Your task to perform on an android device: Add "usb-c" to the cart on bestbuy.com Image 0: 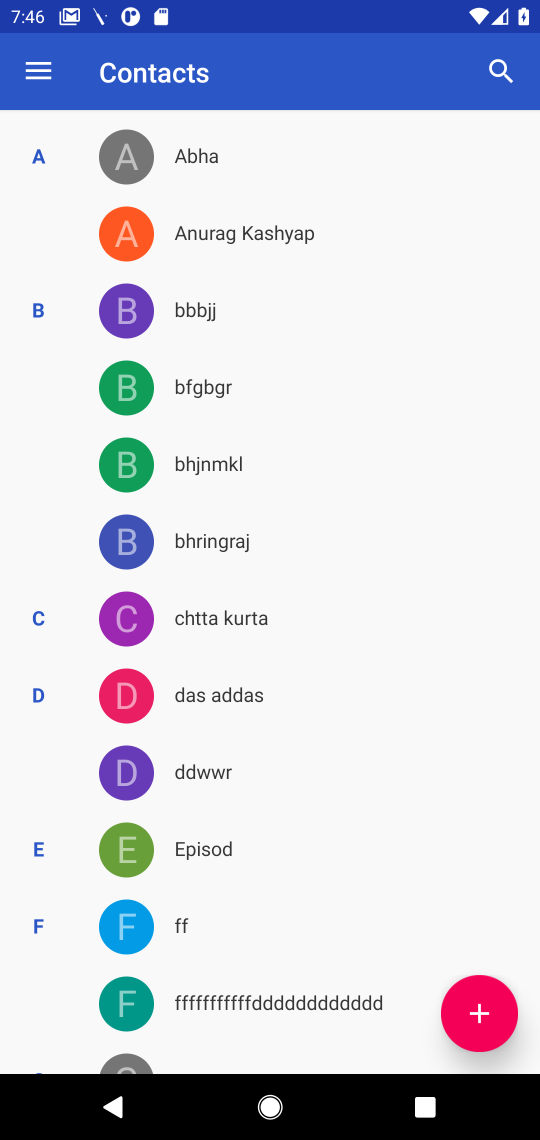
Step 0: press home button
Your task to perform on an android device: Add "usb-c" to the cart on bestbuy.com Image 1: 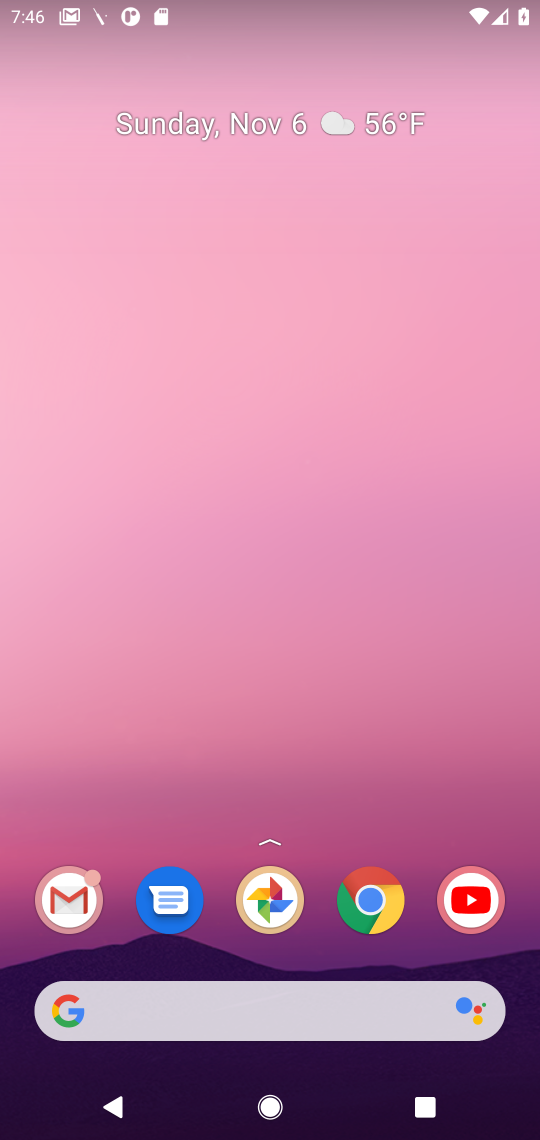
Step 1: drag from (292, 975) to (337, 245)
Your task to perform on an android device: Add "usb-c" to the cart on bestbuy.com Image 2: 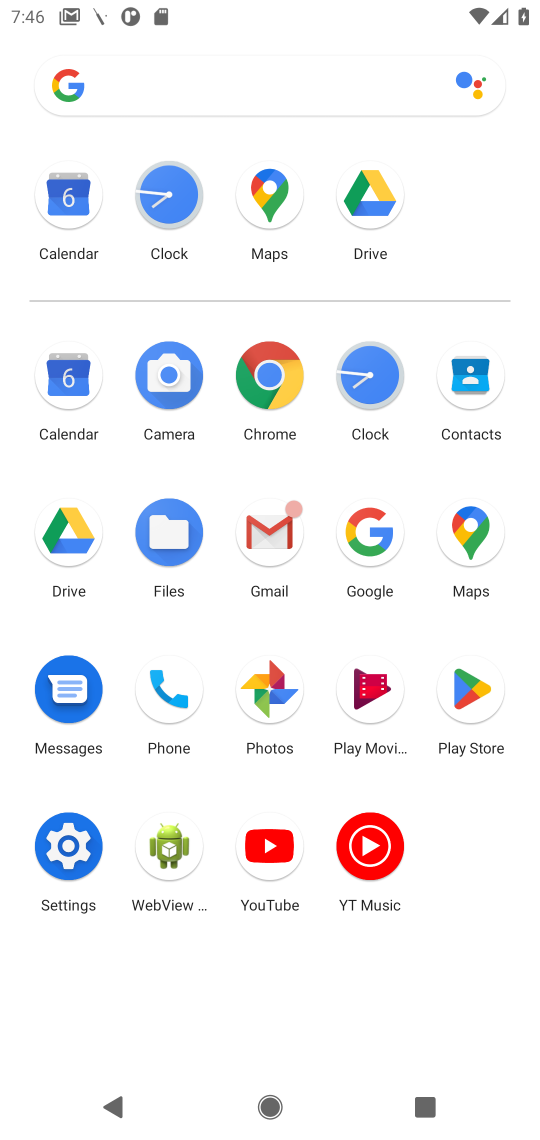
Step 2: click (275, 383)
Your task to perform on an android device: Add "usb-c" to the cart on bestbuy.com Image 3: 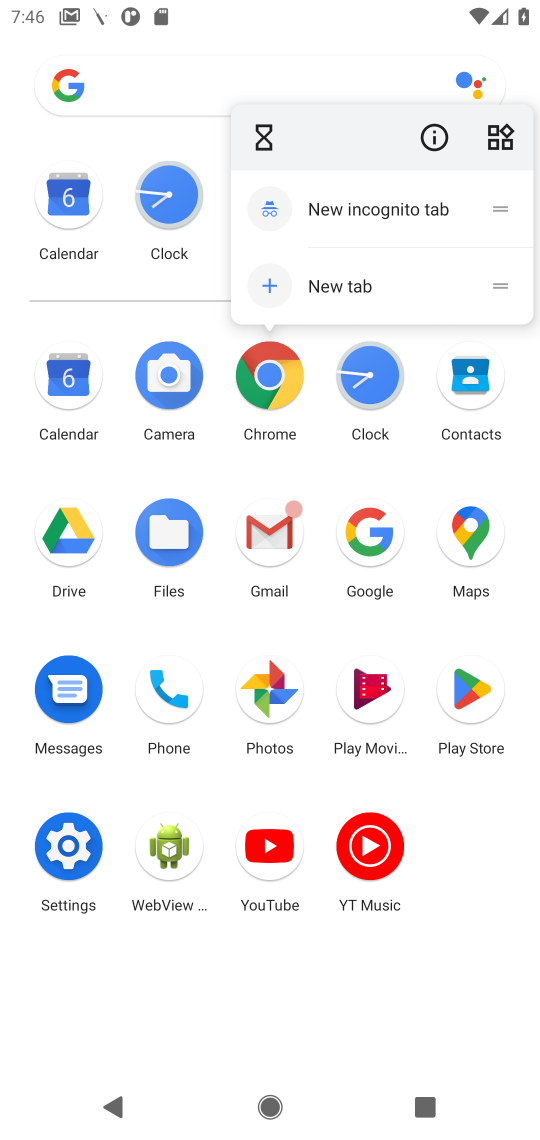
Step 3: click (260, 383)
Your task to perform on an android device: Add "usb-c" to the cart on bestbuy.com Image 4: 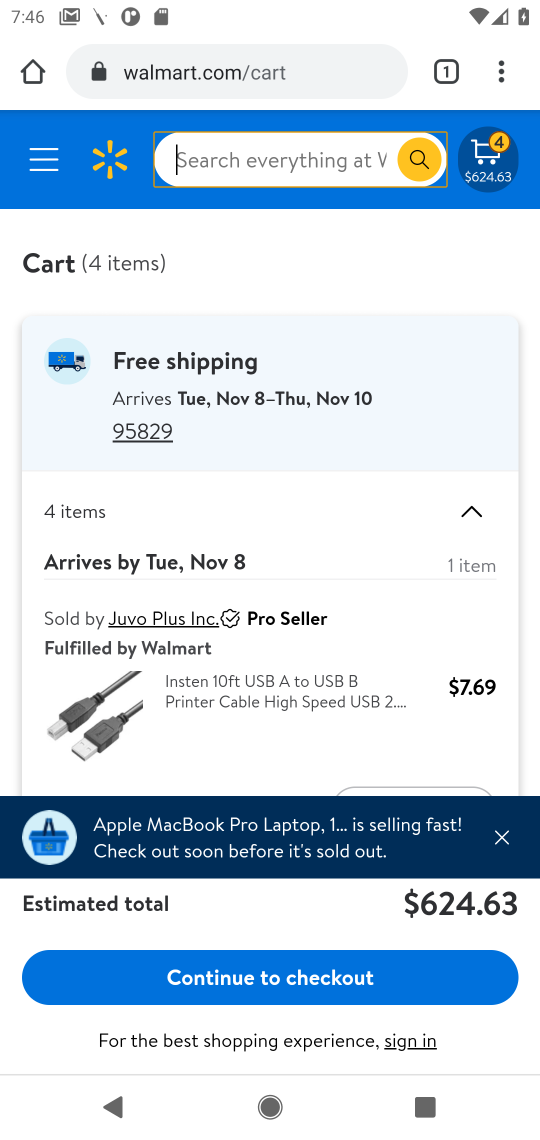
Step 4: click (244, 64)
Your task to perform on an android device: Add "usb-c" to the cart on bestbuy.com Image 5: 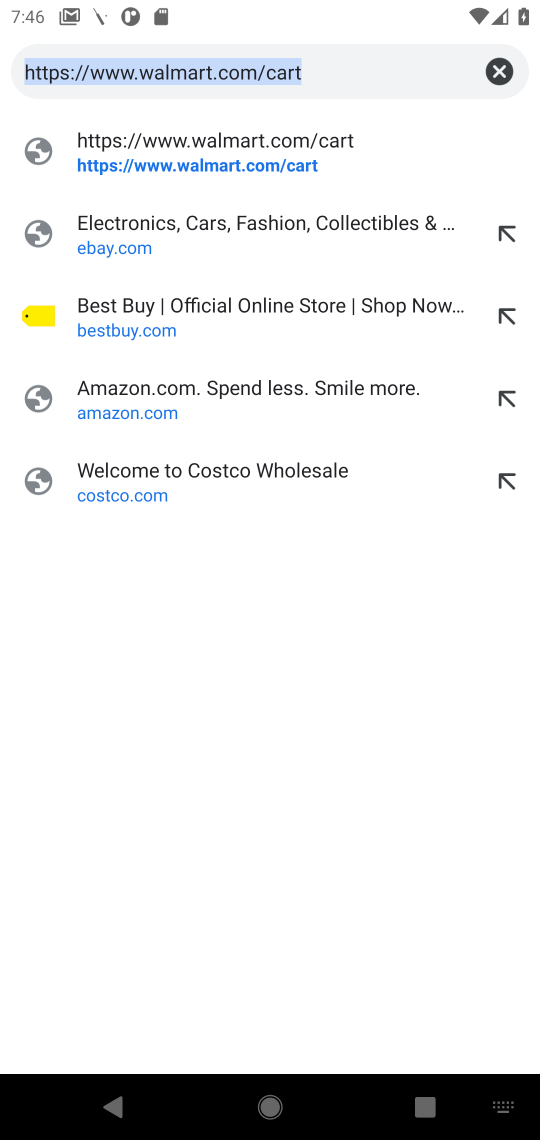
Step 5: type "bestbuy.com"
Your task to perform on an android device: Add "usb-c" to the cart on bestbuy.com Image 6: 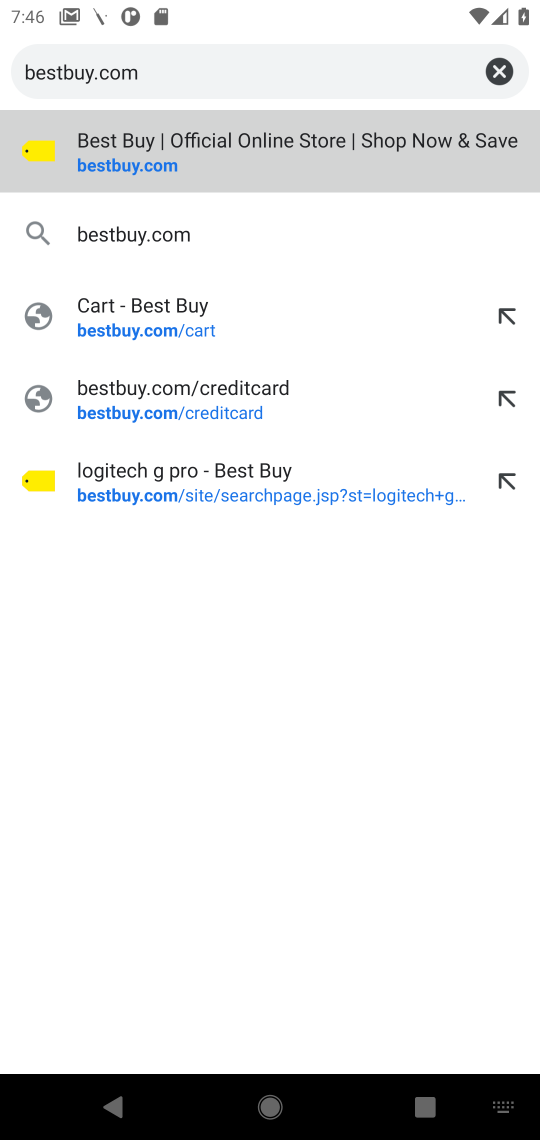
Step 6: press enter
Your task to perform on an android device: Add "usb-c" to the cart on bestbuy.com Image 7: 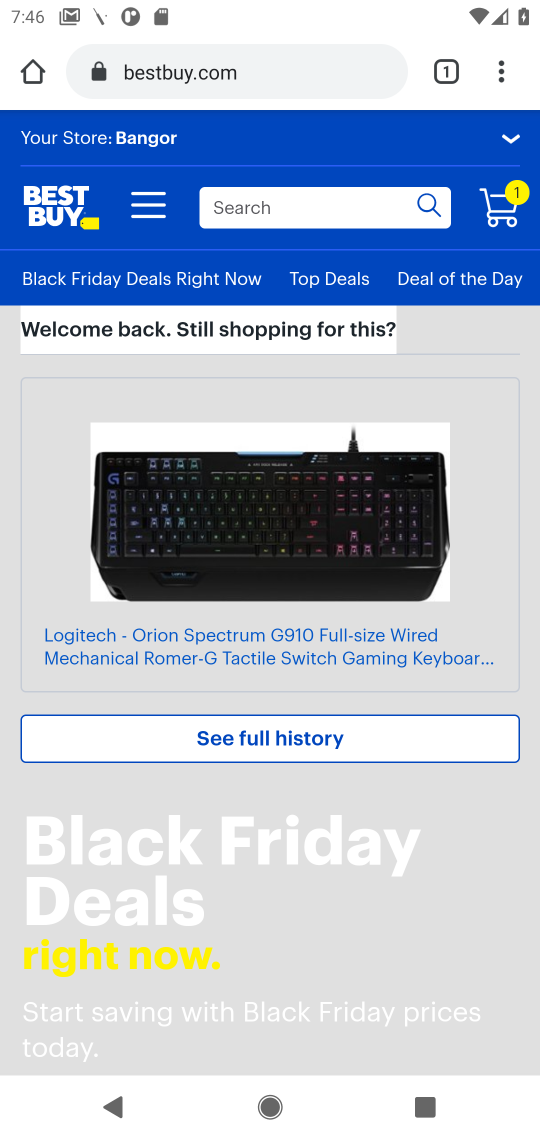
Step 7: click (331, 209)
Your task to perform on an android device: Add "usb-c" to the cart on bestbuy.com Image 8: 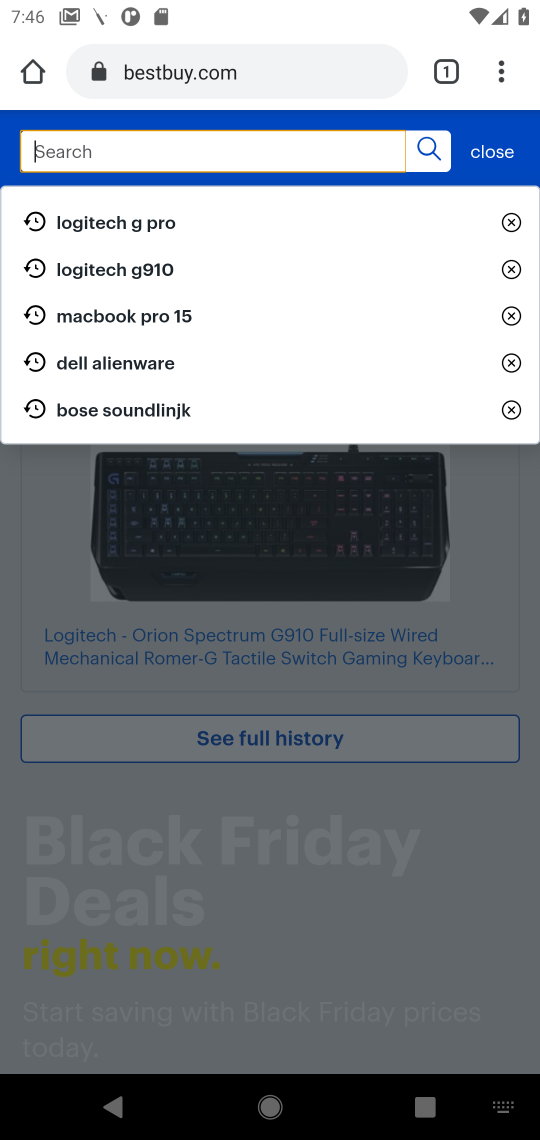
Step 8: type "usb-c"
Your task to perform on an android device: Add "usb-c" to the cart on bestbuy.com Image 9: 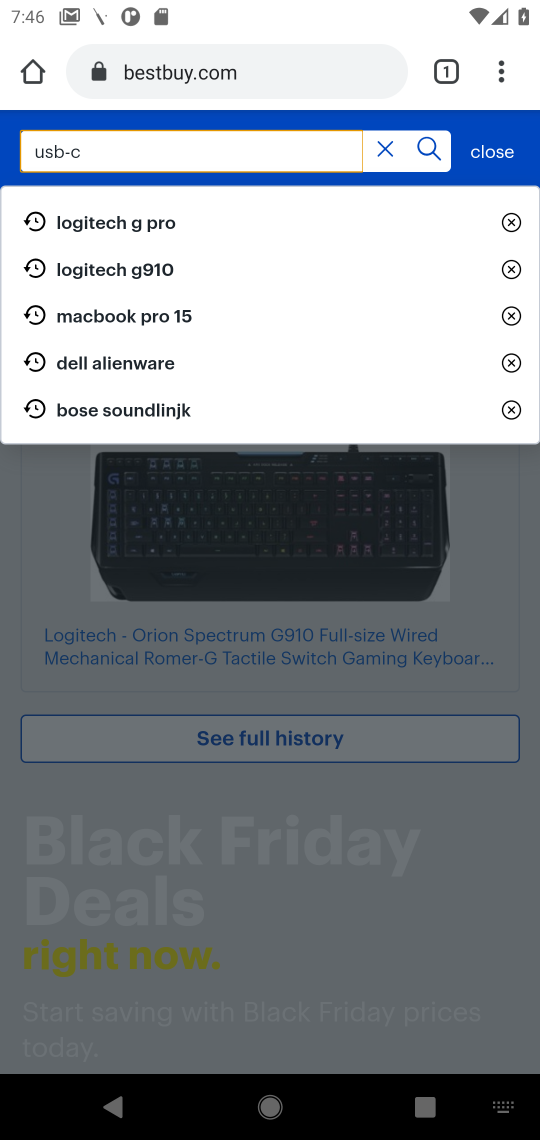
Step 9: press enter
Your task to perform on an android device: Add "usb-c" to the cart on bestbuy.com Image 10: 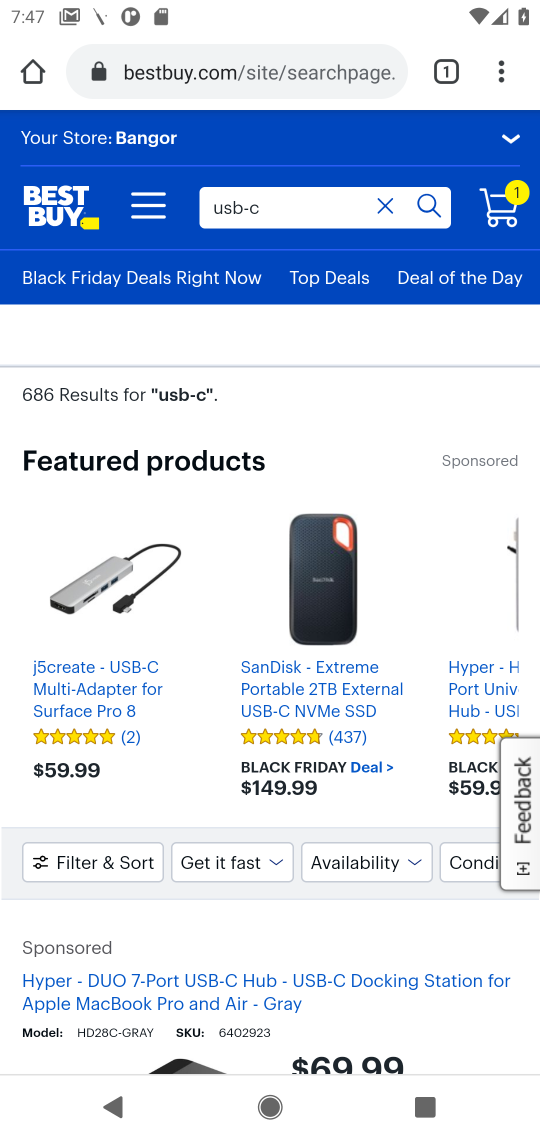
Step 10: drag from (256, 866) to (238, 208)
Your task to perform on an android device: Add "usb-c" to the cart on bestbuy.com Image 11: 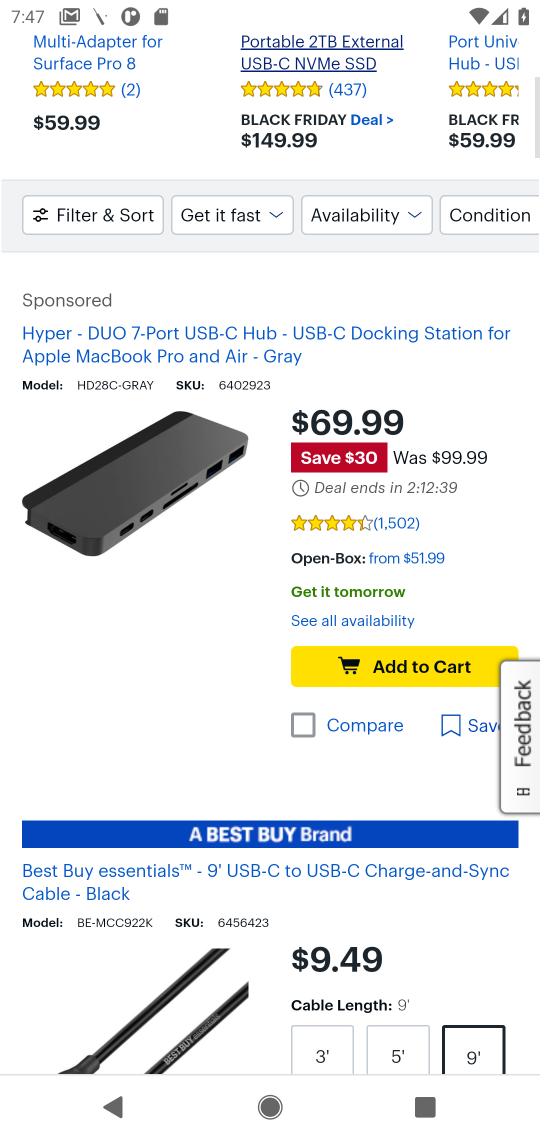
Step 11: drag from (308, 795) to (306, 362)
Your task to perform on an android device: Add "usb-c" to the cart on bestbuy.com Image 12: 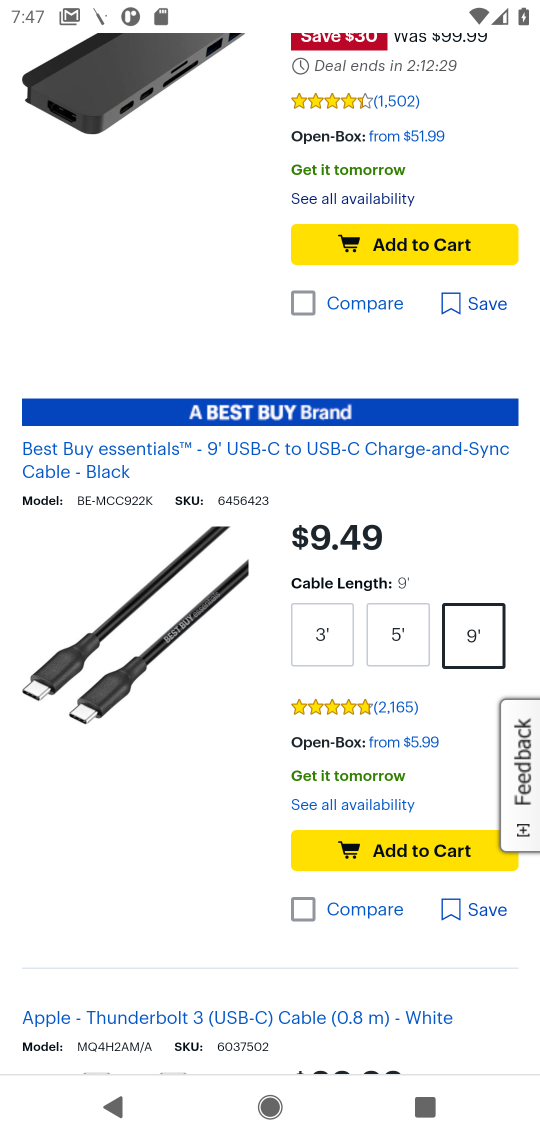
Step 12: click (415, 858)
Your task to perform on an android device: Add "usb-c" to the cart on bestbuy.com Image 13: 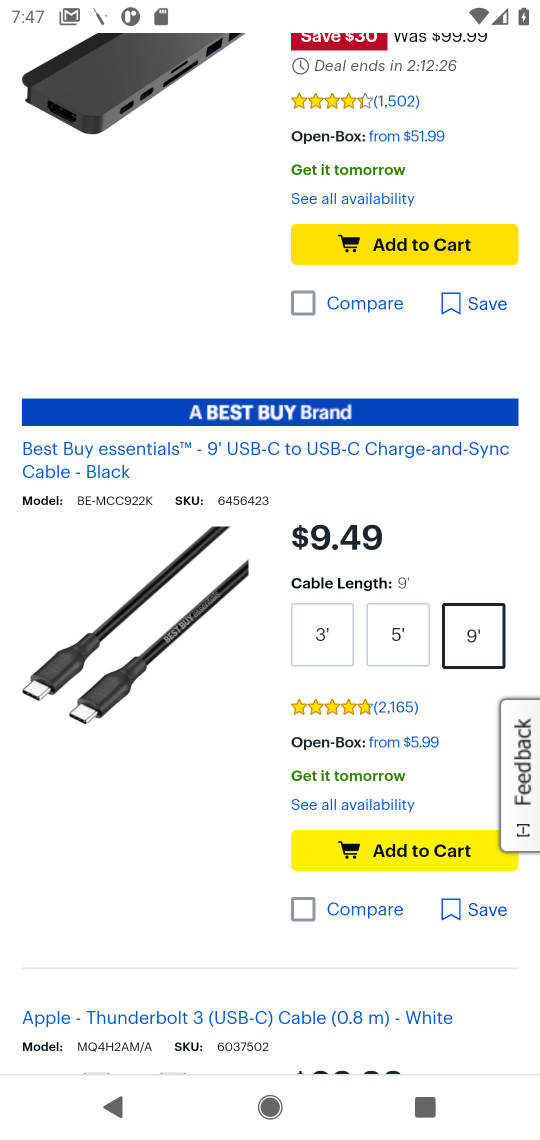
Step 13: task complete